Your task to perform on an android device: Open the calendar app, open the side menu, and click the "Day" option Image 0: 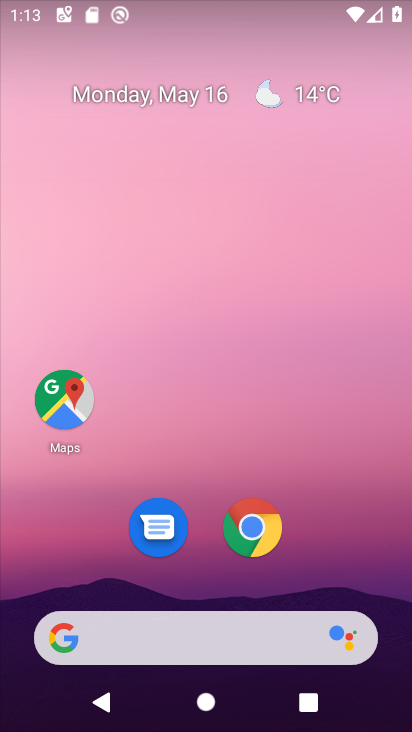
Step 0: drag from (210, 576) to (239, 42)
Your task to perform on an android device: Open the calendar app, open the side menu, and click the "Day" option Image 1: 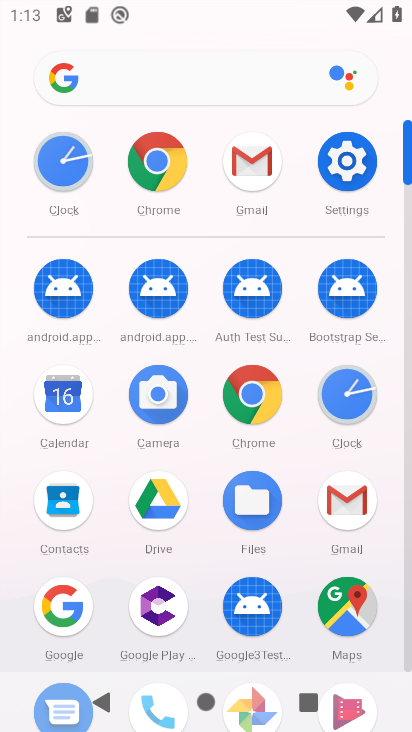
Step 1: click (64, 417)
Your task to perform on an android device: Open the calendar app, open the side menu, and click the "Day" option Image 2: 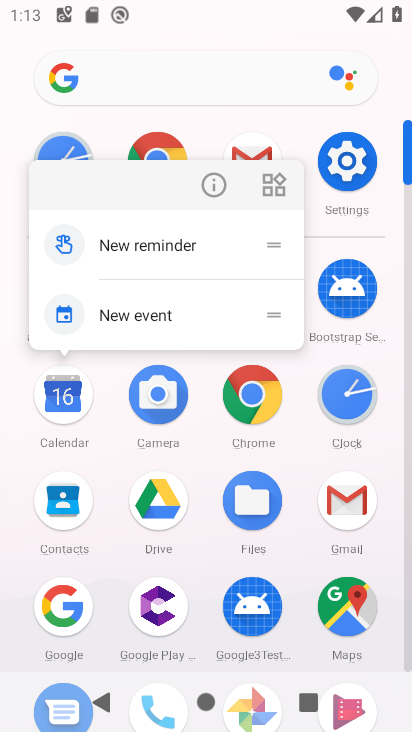
Step 2: click (63, 402)
Your task to perform on an android device: Open the calendar app, open the side menu, and click the "Day" option Image 3: 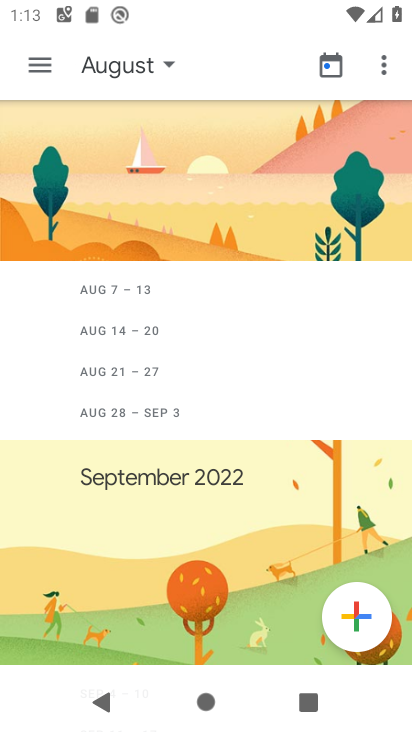
Step 3: click (45, 65)
Your task to perform on an android device: Open the calendar app, open the side menu, and click the "Day" option Image 4: 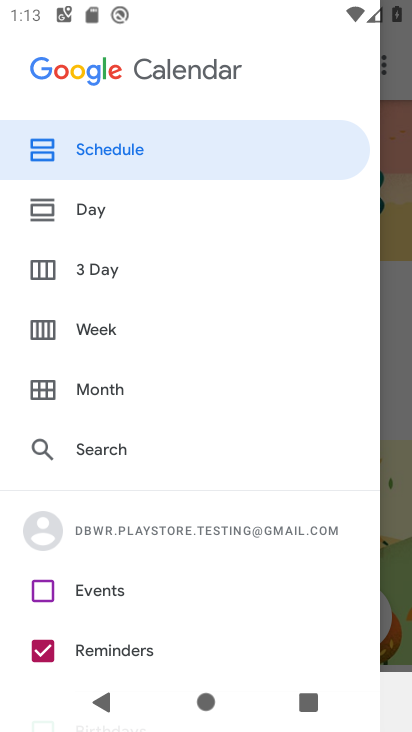
Step 4: click (101, 213)
Your task to perform on an android device: Open the calendar app, open the side menu, and click the "Day" option Image 5: 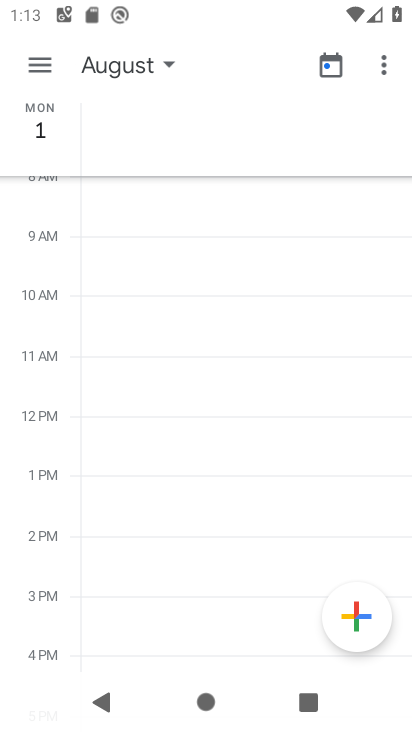
Step 5: task complete